Your task to perform on an android device: Go to sound settings Image 0: 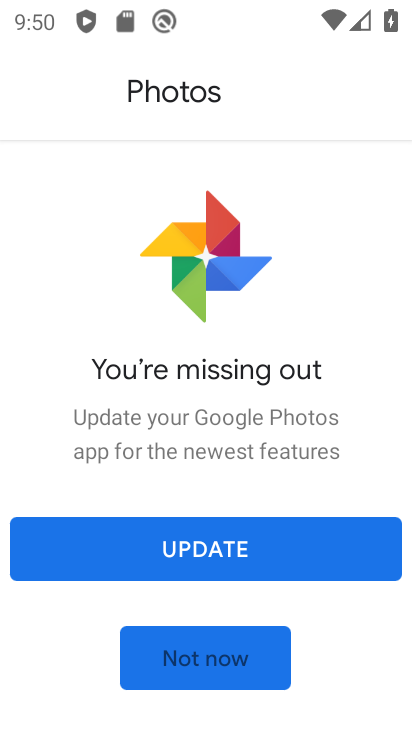
Step 0: press home button
Your task to perform on an android device: Go to sound settings Image 1: 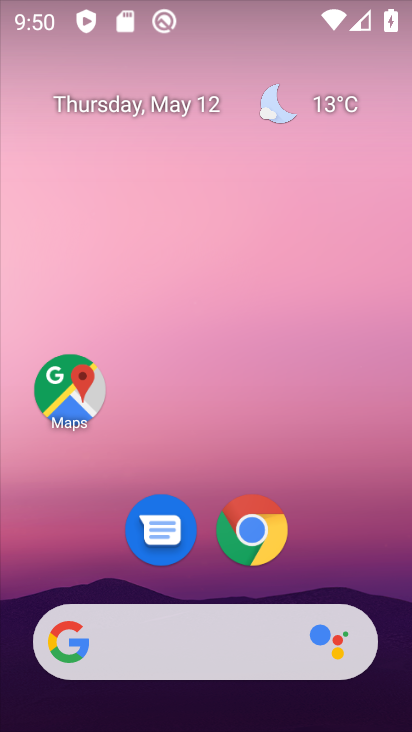
Step 1: drag from (321, 521) to (318, 256)
Your task to perform on an android device: Go to sound settings Image 2: 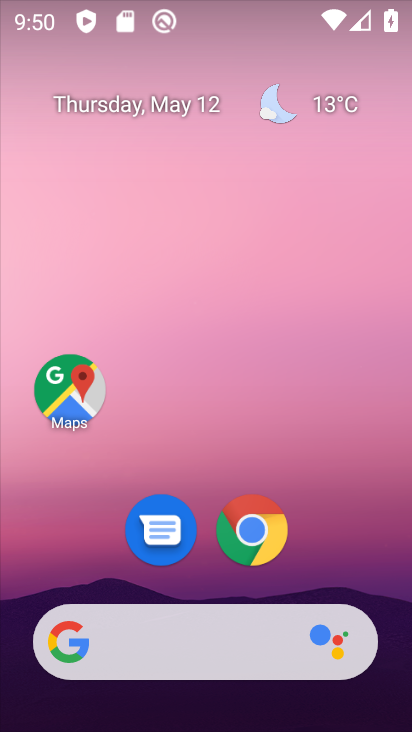
Step 2: drag from (355, 554) to (362, 106)
Your task to perform on an android device: Go to sound settings Image 3: 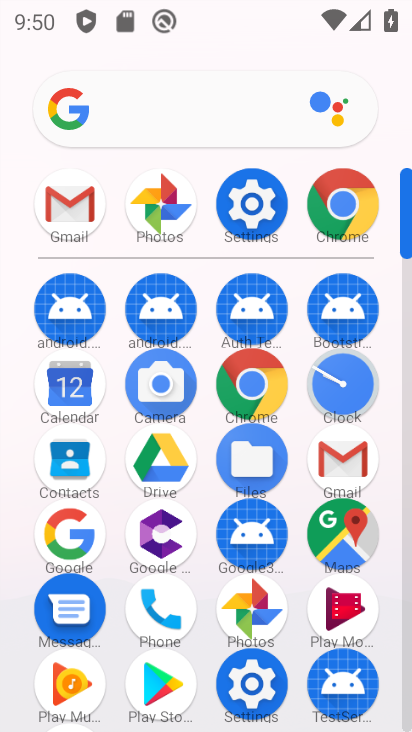
Step 3: click (264, 220)
Your task to perform on an android device: Go to sound settings Image 4: 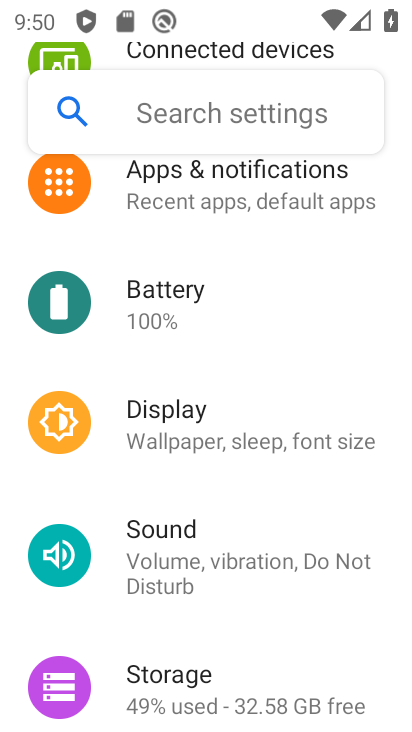
Step 4: click (228, 556)
Your task to perform on an android device: Go to sound settings Image 5: 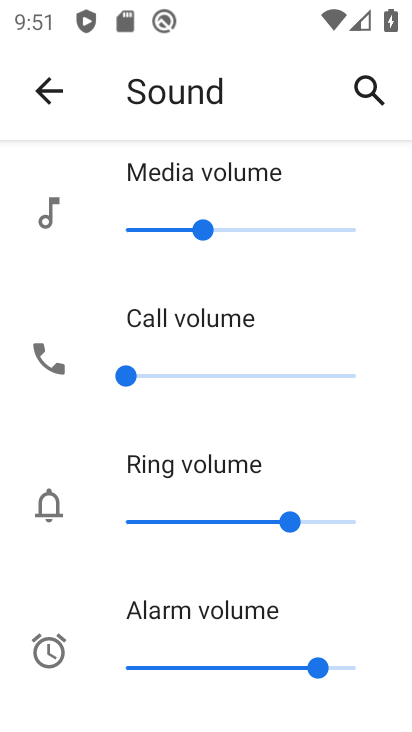
Step 5: task complete